Your task to perform on an android device: Search for seafood restaurants on Google Maps Image 0: 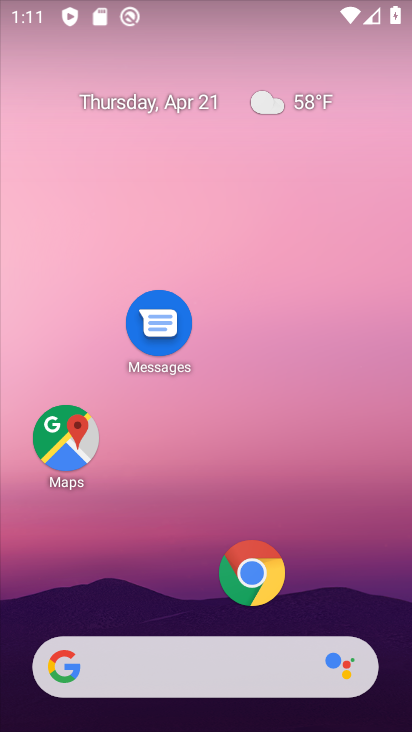
Step 0: click (68, 439)
Your task to perform on an android device: Search for seafood restaurants on Google Maps Image 1: 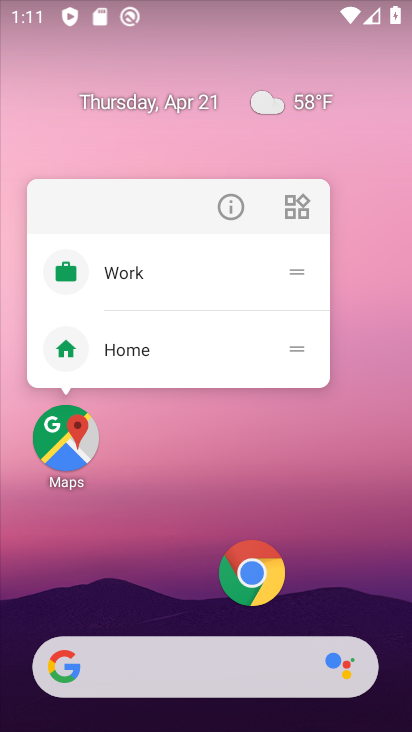
Step 1: click (68, 439)
Your task to perform on an android device: Search for seafood restaurants on Google Maps Image 2: 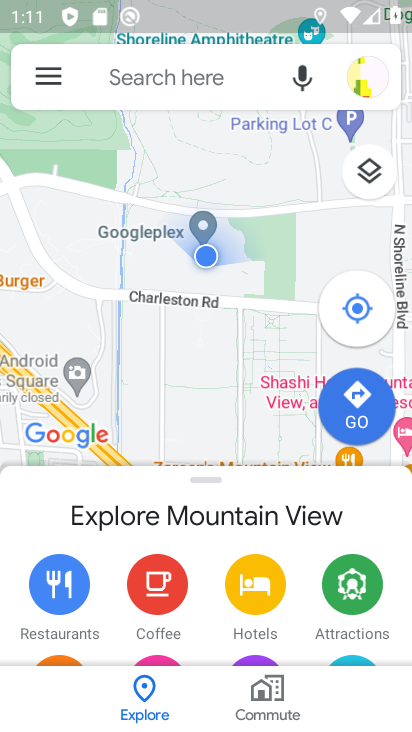
Step 2: click (191, 75)
Your task to perform on an android device: Search for seafood restaurants on Google Maps Image 3: 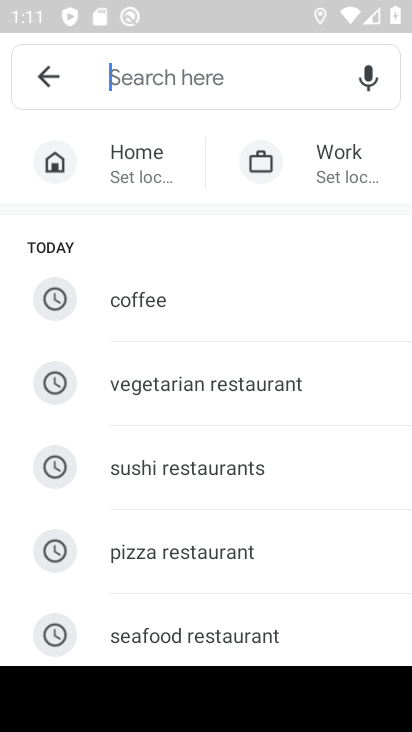
Step 3: drag from (237, 551) to (241, 374)
Your task to perform on an android device: Search for seafood restaurants on Google Maps Image 4: 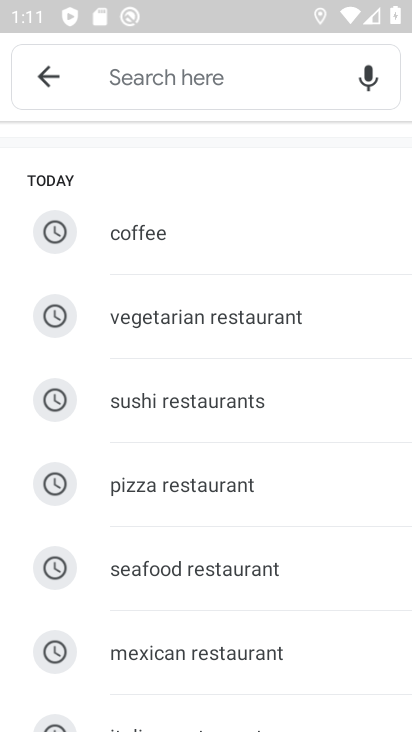
Step 4: click (220, 574)
Your task to perform on an android device: Search for seafood restaurants on Google Maps Image 5: 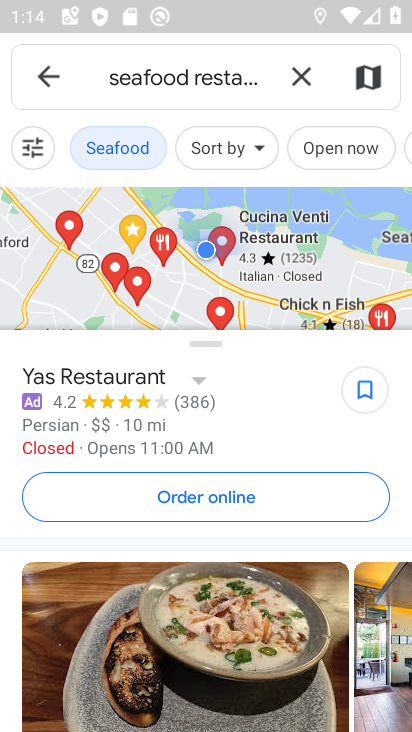
Step 5: task complete